Your task to perform on an android device: turn on notifications settings in the gmail app Image 0: 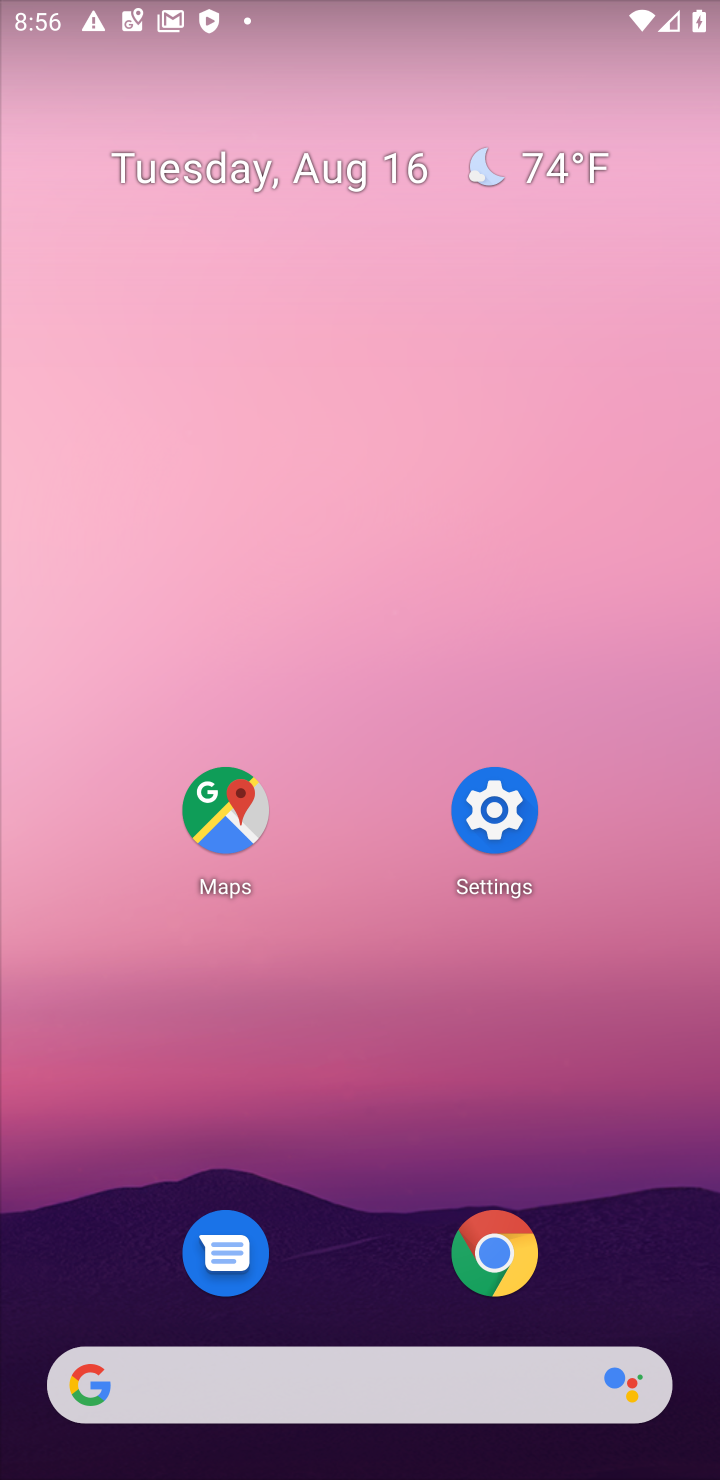
Step 0: drag from (361, 1038) to (492, 288)
Your task to perform on an android device: turn on notifications settings in the gmail app Image 1: 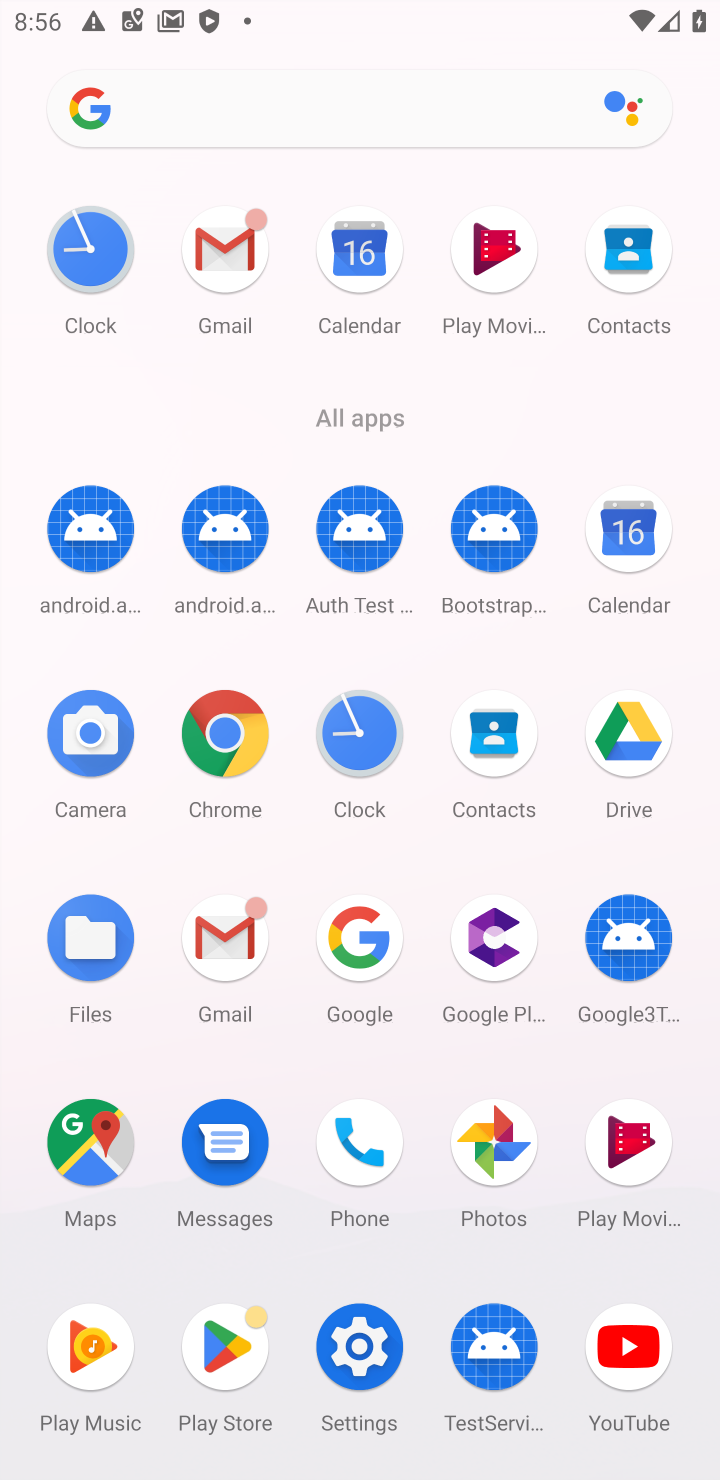
Step 1: click (230, 931)
Your task to perform on an android device: turn on notifications settings in the gmail app Image 2: 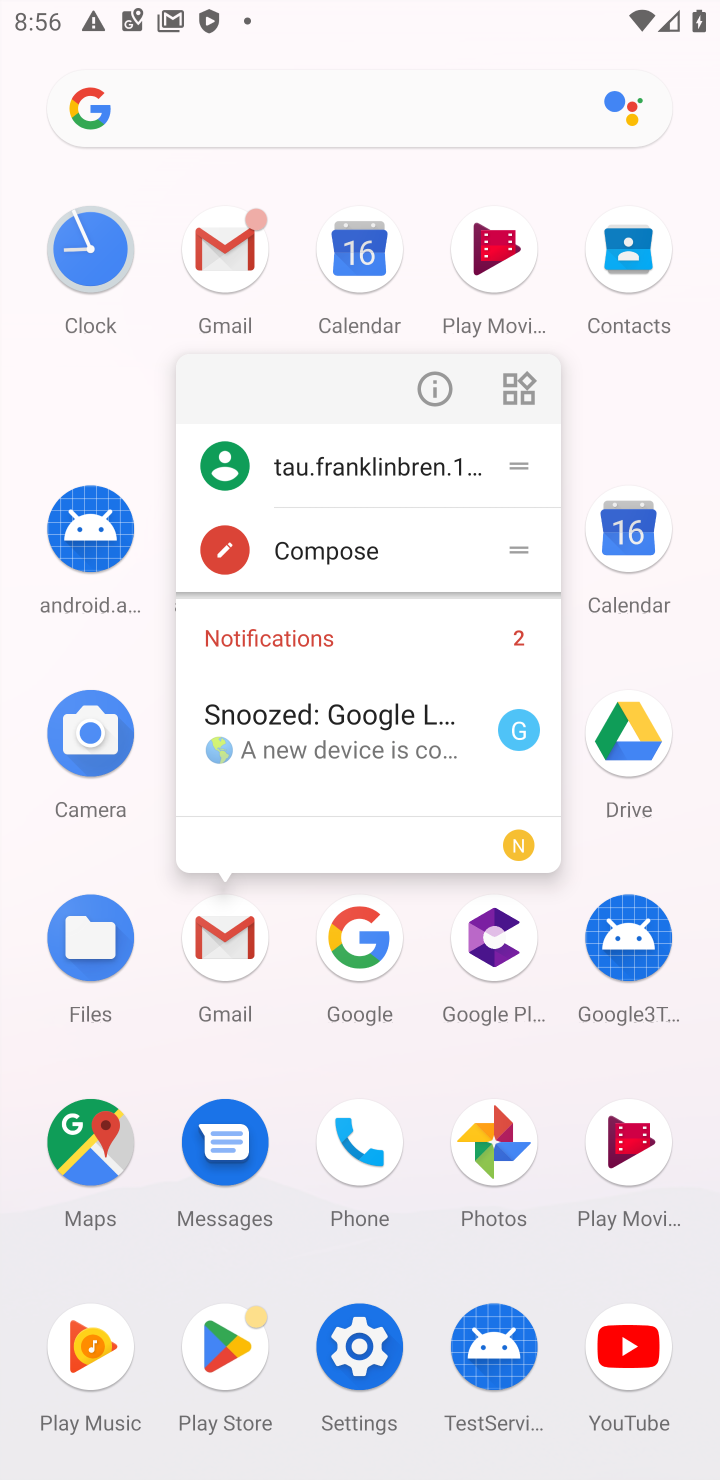
Step 2: click (228, 948)
Your task to perform on an android device: turn on notifications settings in the gmail app Image 3: 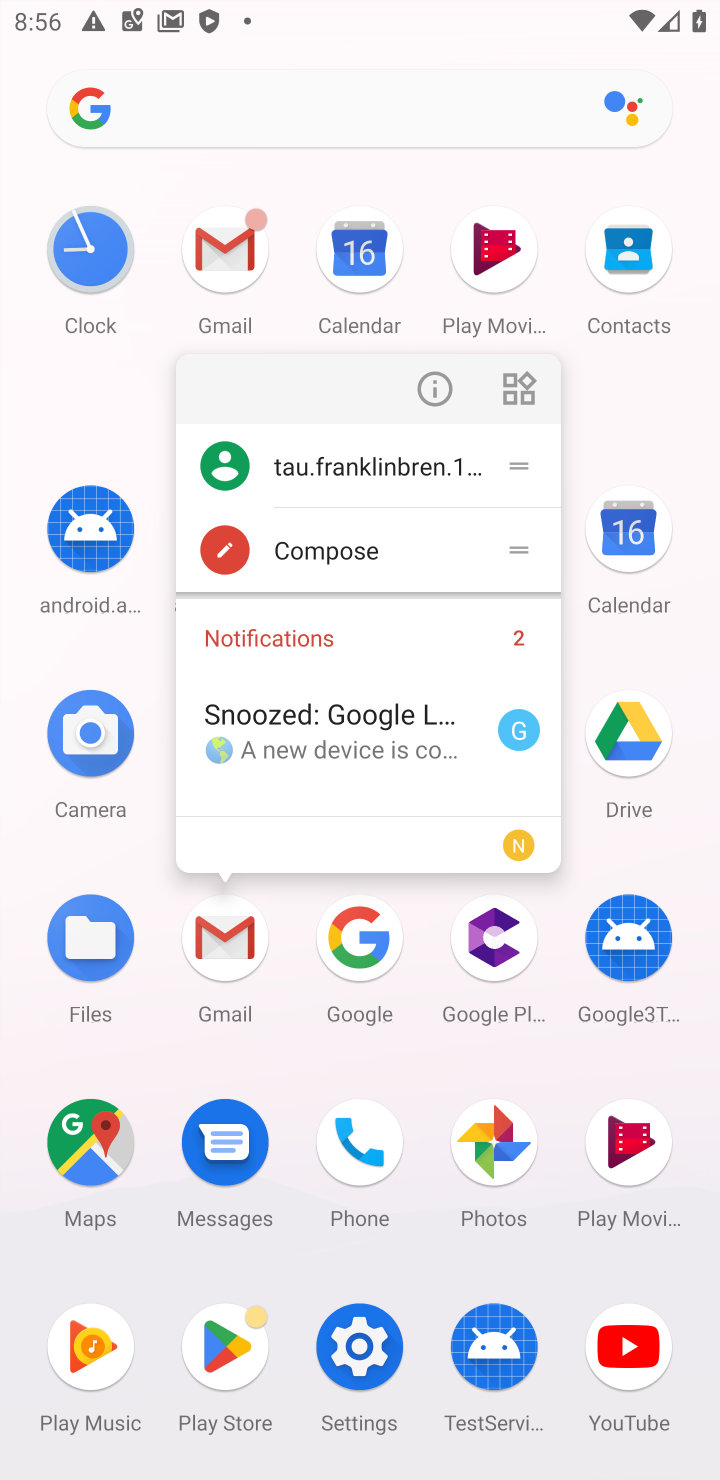
Step 3: click (228, 954)
Your task to perform on an android device: turn on notifications settings in the gmail app Image 4: 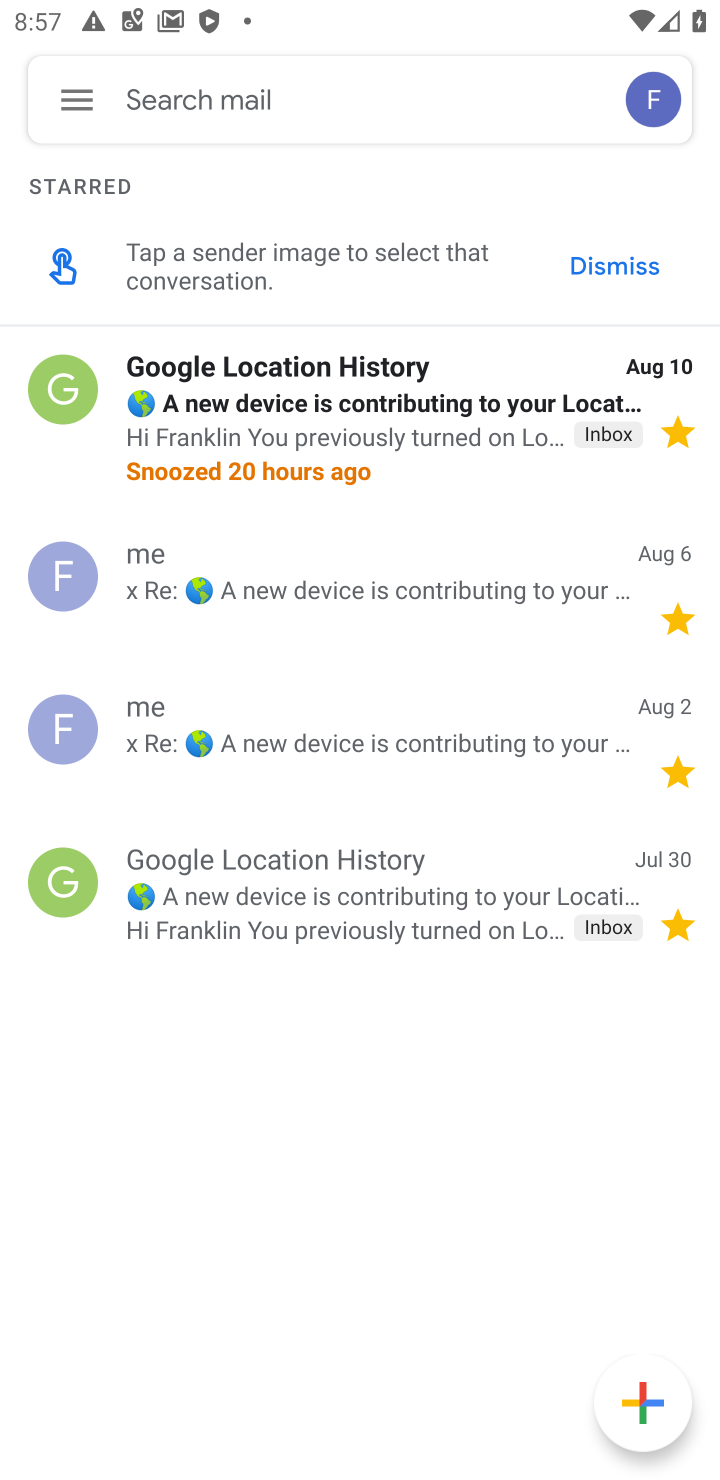
Step 4: click (84, 94)
Your task to perform on an android device: turn on notifications settings in the gmail app Image 5: 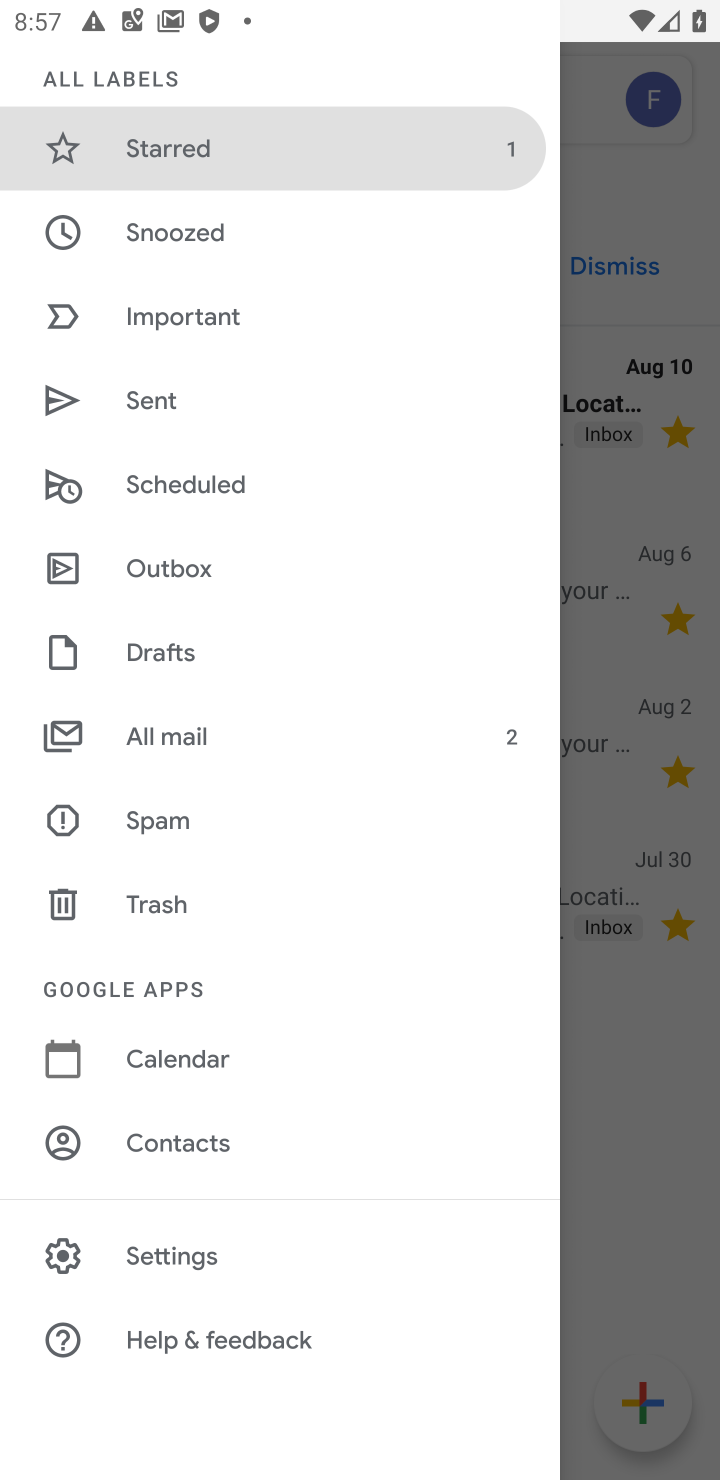
Step 5: click (172, 1267)
Your task to perform on an android device: turn on notifications settings in the gmail app Image 6: 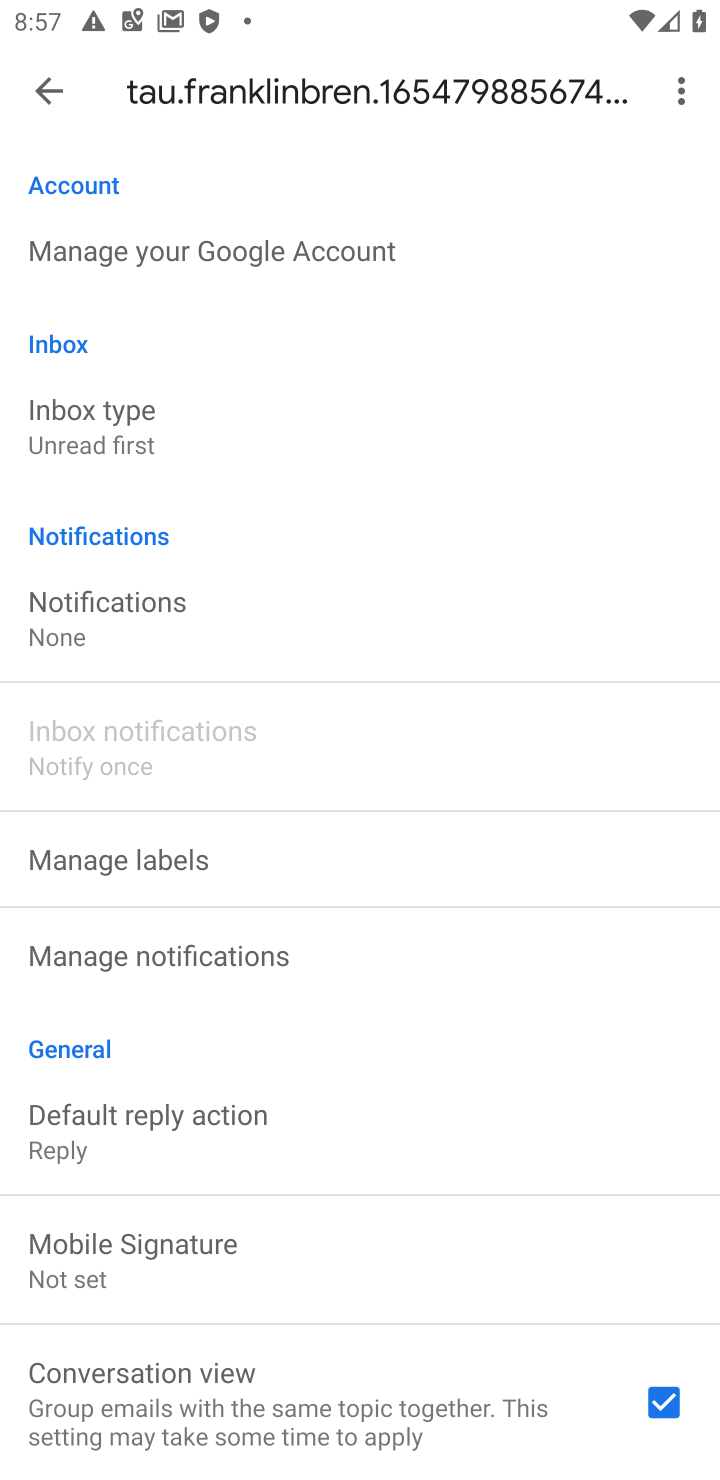
Step 6: click (98, 630)
Your task to perform on an android device: turn on notifications settings in the gmail app Image 7: 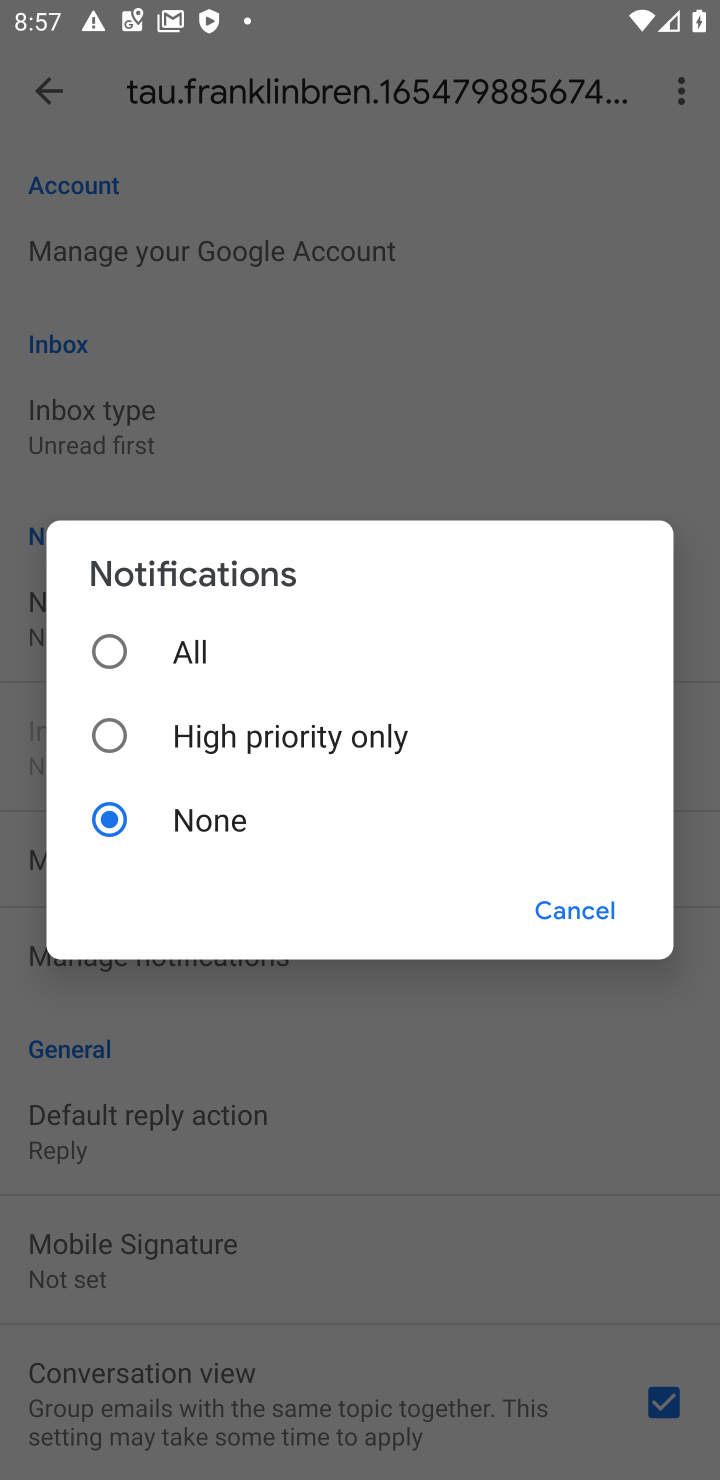
Step 7: click (113, 650)
Your task to perform on an android device: turn on notifications settings in the gmail app Image 8: 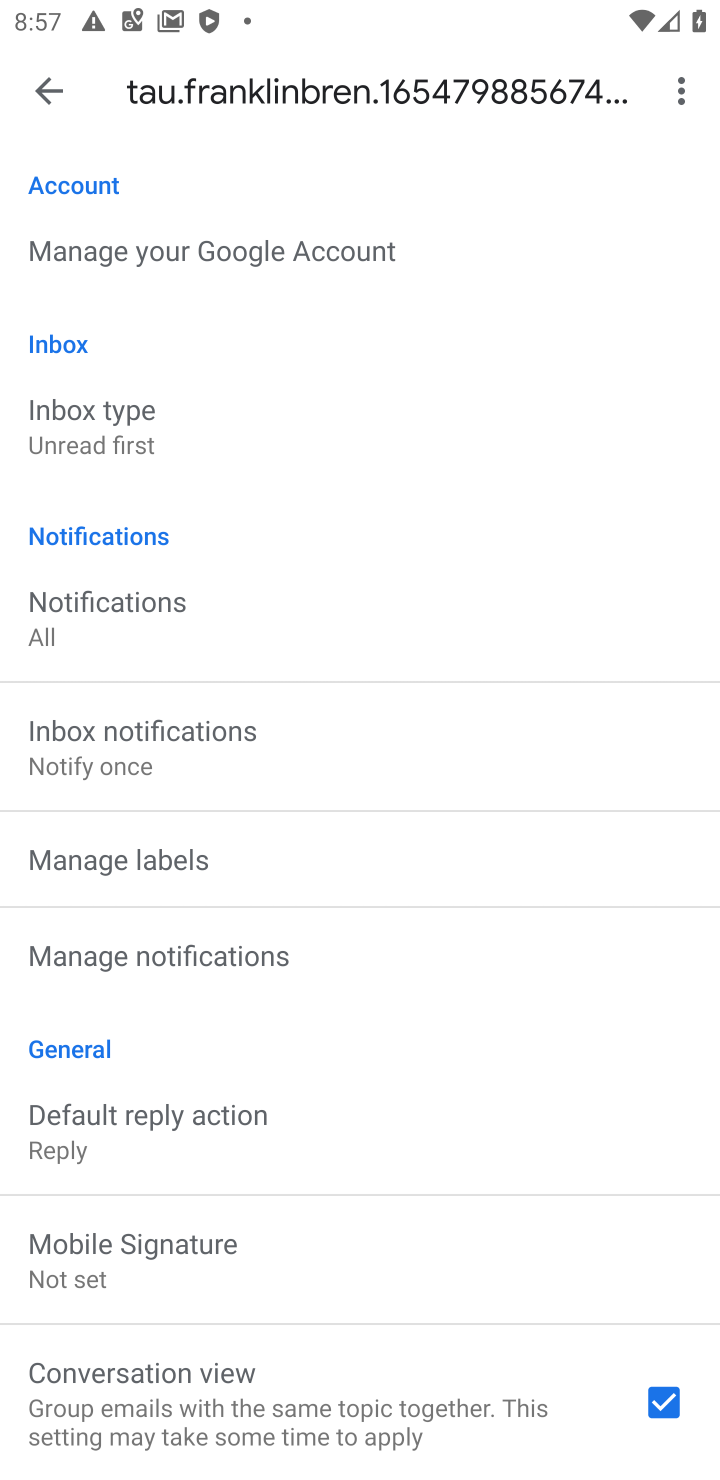
Step 8: task complete